Your task to perform on an android device: Search for macbook pro 15 inch on walmart.com, select the first entry, add it to the cart, then select checkout. Image 0: 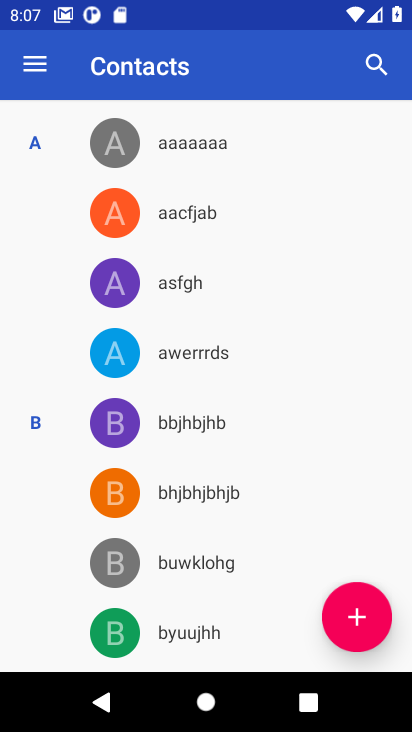
Step 0: task complete